Your task to perform on an android device: toggle show notifications on the lock screen Image 0: 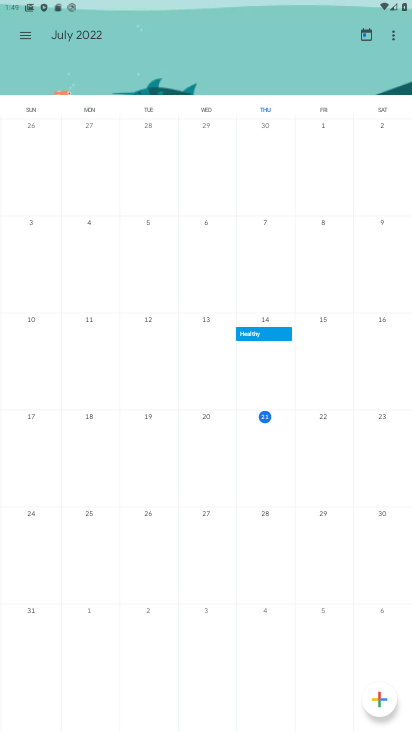
Step 0: press home button
Your task to perform on an android device: toggle show notifications on the lock screen Image 1: 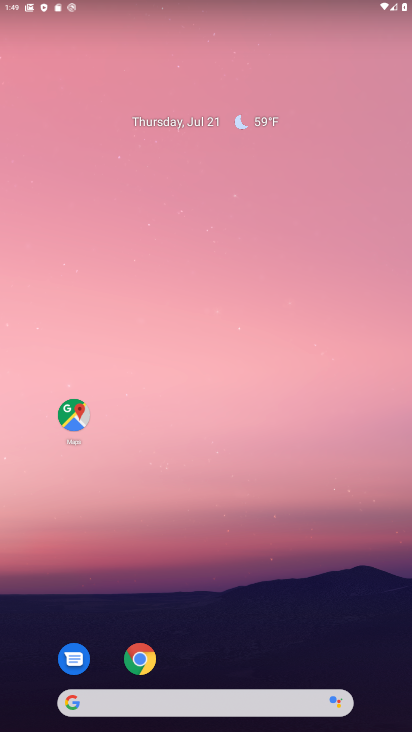
Step 1: drag from (334, 644) to (257, 110)
Your task to perform on an android device: toggle show notifications on the lock screen Image 2: 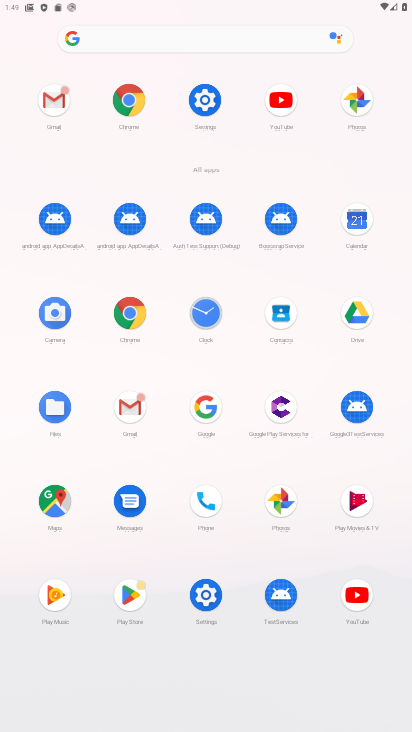
Step 2: click (202, 107)
Your task to perform on an android device: toggle show notifications on the lock screen Image 3: 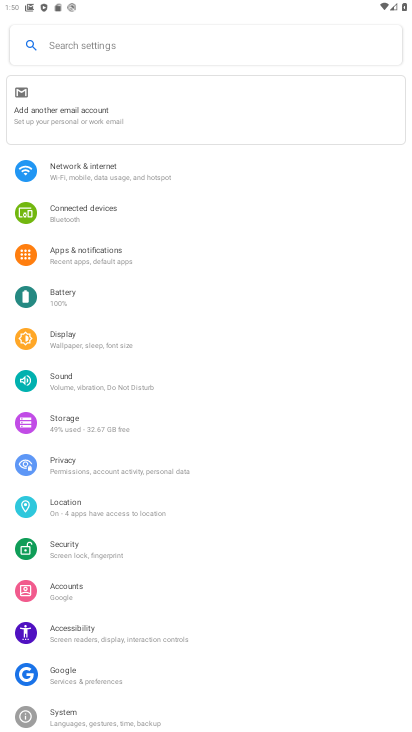
Step 3: click (109, 256)
Your task to perform on an android device: toggle show notifications on the lock screen Image 4: 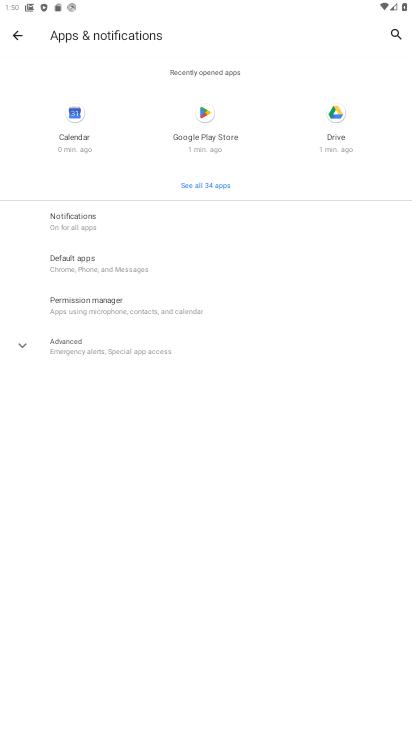
Step 4: click (104, 218)
Your task to perform on an android device: toggle show notifications on the lock screen Image 5: 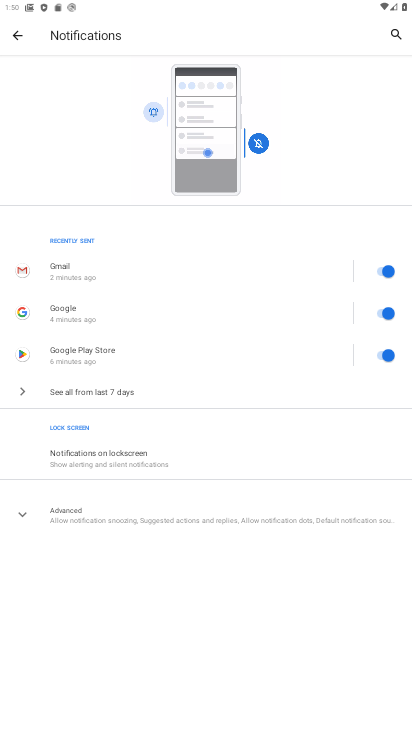
Step 5: click (116, 457)
Your task to perform on an android device: toggle show notifications on the lock screen Image 6: 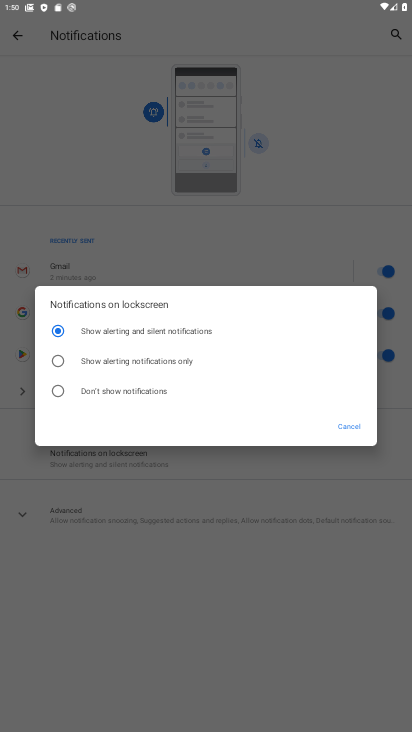
Step 6: click (166, 353)
Your task to perform on an android device: toggle show notifications on the lock screen Image 7: 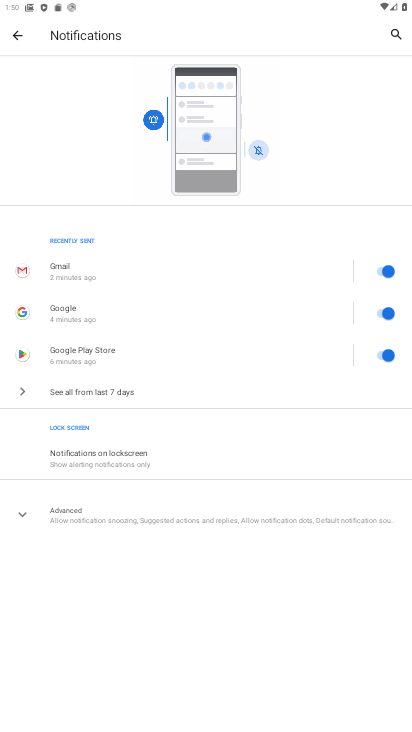
Step 7: task complete